Your task to perform on an android device: Show me productivity apps on the Play Store Image 0: 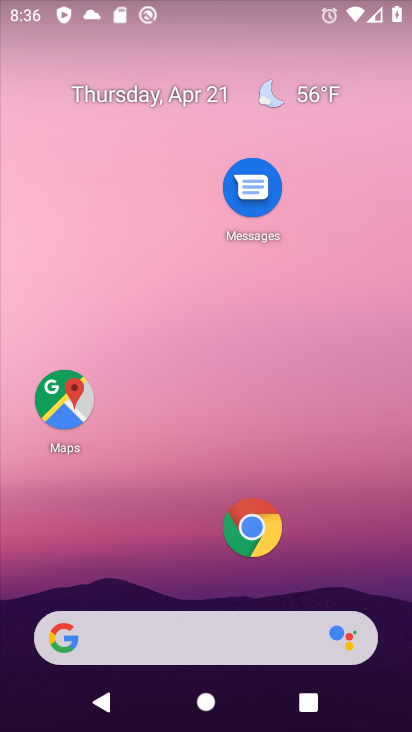
Step 0: drag from (178, 592) to (293, 80)
Your task to perform on an android device: Show me productivity apps on the Play Store Image 1: 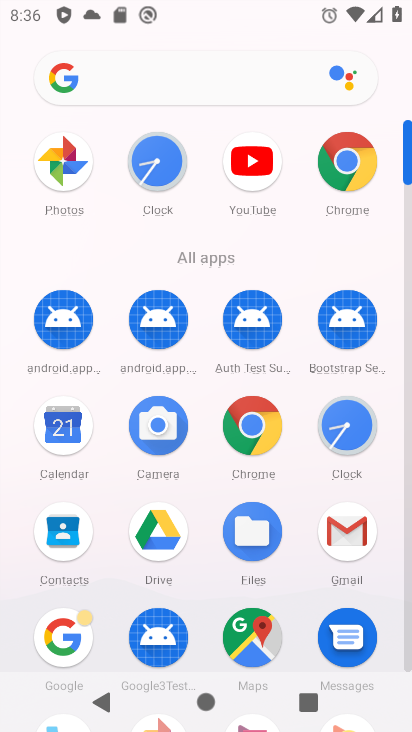
Step 1: drag from (126, 558) to (292, 131)
Your task to perform on an android device: Show me productivity apps on the Play Store Image 2: 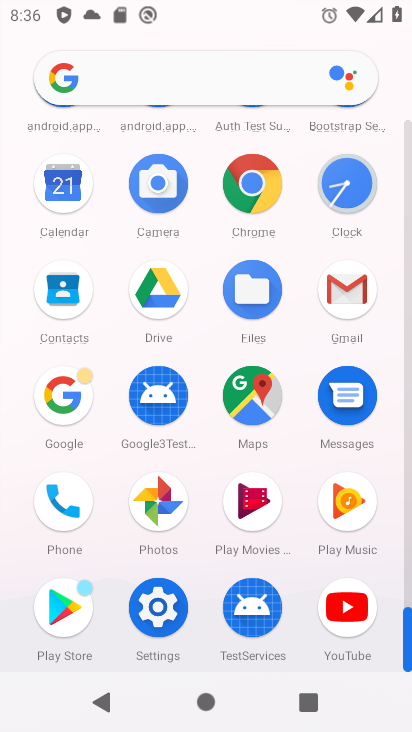
Step 2: click (64, 618)
Your task to perform on an android device: Show me productivity apps on the Play Store Image 3: 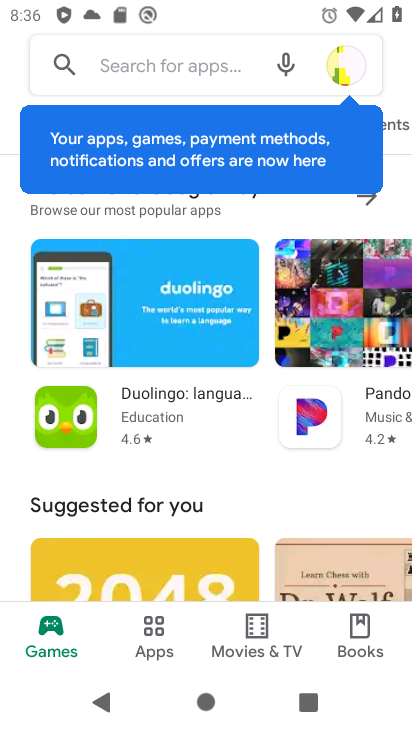
Step 3: click (156, 651)
Your task to perform on an android device: Show me productivity apps on the Play Store Image 4: 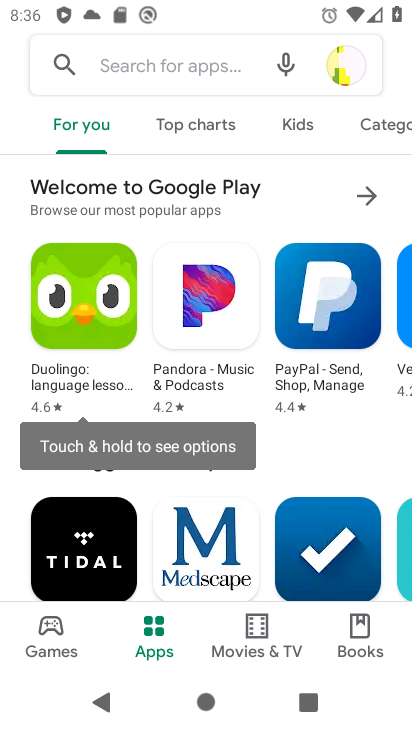
Step 4: click (386, 115)
Your task to perform on an android device: Show me productivity apps on the Play Store Image 5: 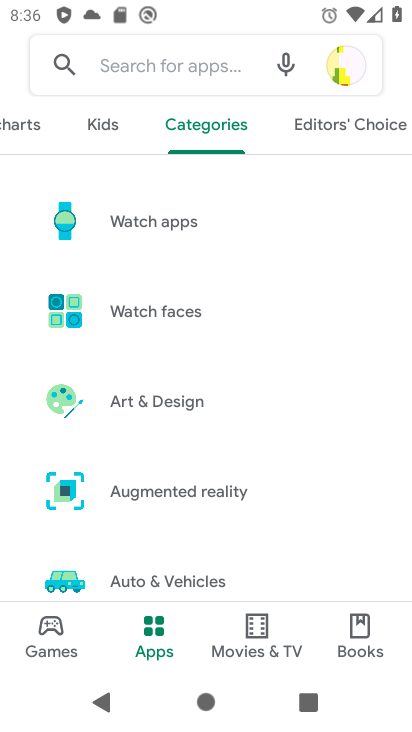
Step 5: drag from (186, 554) to (297, 308)
Your task to perform on an android device: Show me productivity apps on the Play Store Image 6: 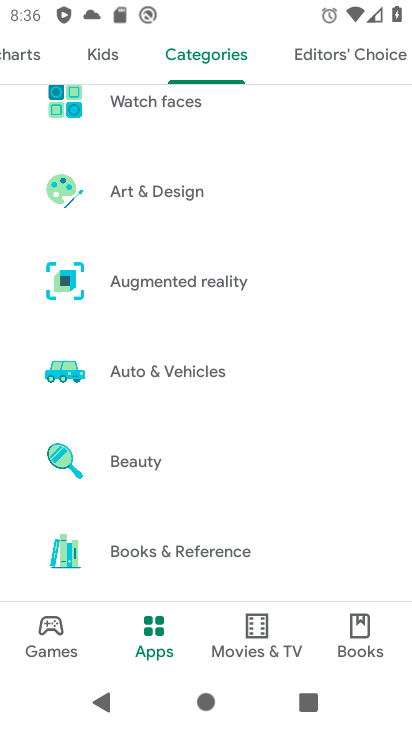
Step 6: drag from (204, 470) to (395, 77)
Your task to perform on an android device: Show me productivity apps on the Play Store Image 7: 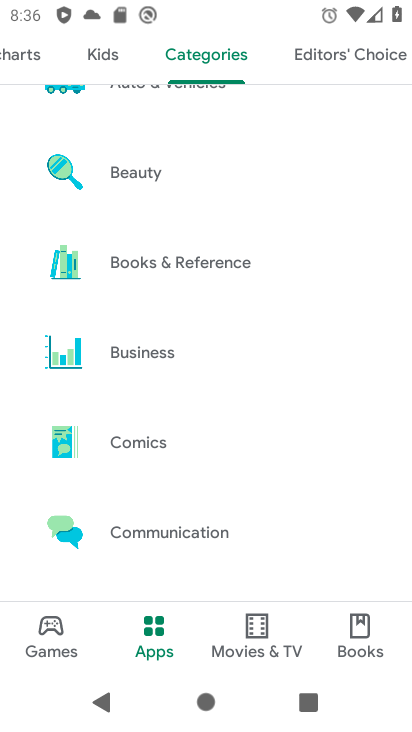
Step 7: drag from (245, 551) to (372, 58)
Your task to perform on an android device: Show me productivity apps on the Play Store Image 8: 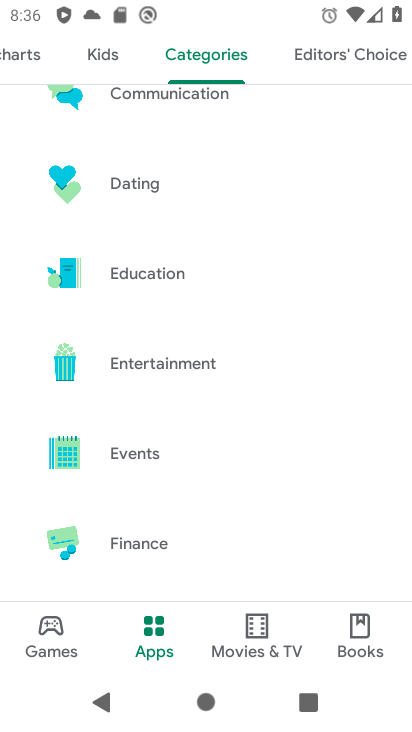
Step 8: drag from (232, 508) to (336, 50)
Your task to perform on an android device: Show me productivity apps on the Play Store Image 9: 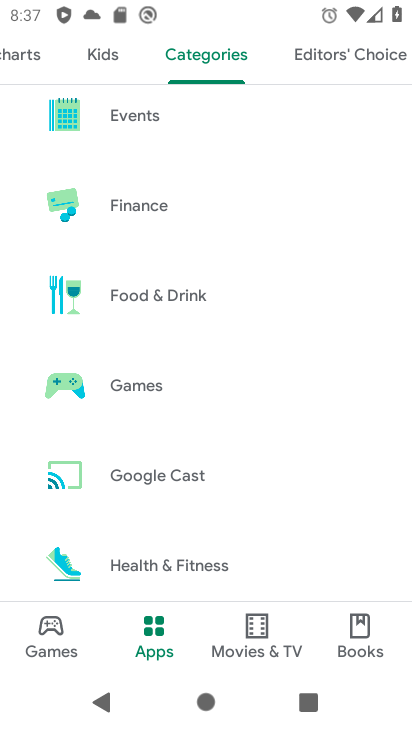
Step 9: drag from (223, 528) to (330, 21)
Your task to perform on an android device: Show me productivity apps on the Play Store Image 10: 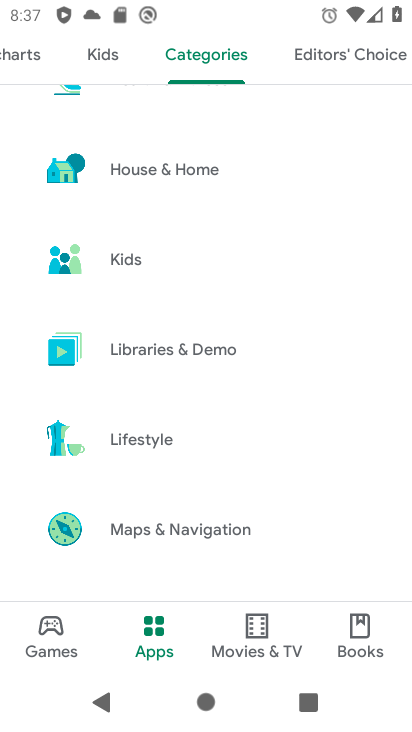
Step 10: drag from (196, 448) to (291, 46)
Your task to perform on an android device: Show me productivity apps on the Play Store Image 11: 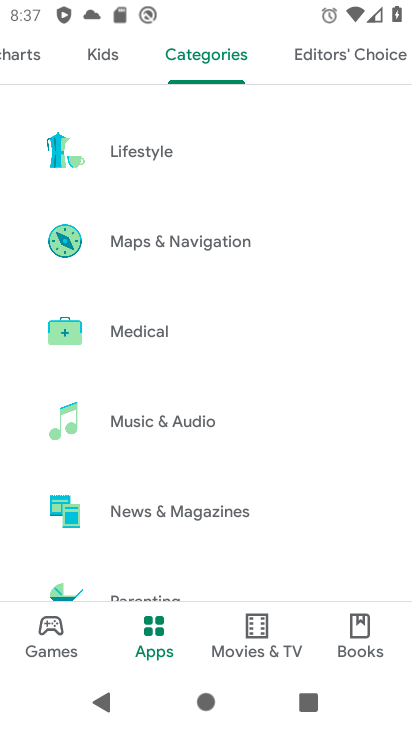
Step 11: drag from (271, 492) to (389, 34)
Your task to perform on an android device: Show me productivity apps on the Play Store Image 12: 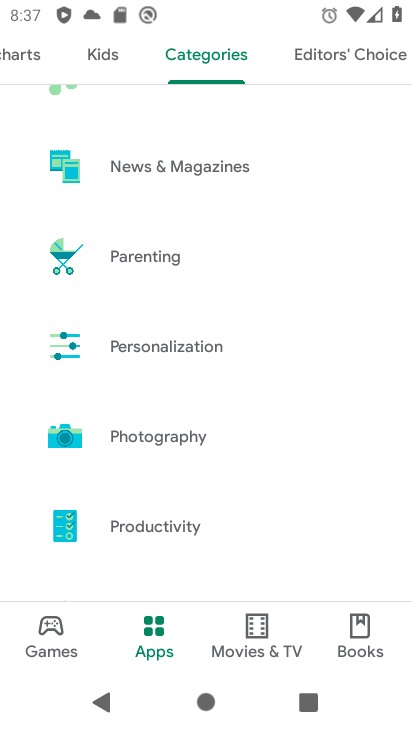
Step 12: click (154, 531)
Your task to perform on an android device: Show me productivity apps on the Play Store Image 13: 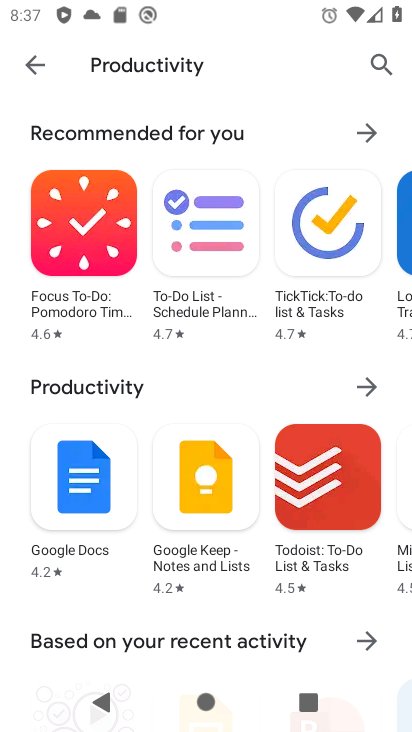
Step 13: task complete